Your task to perform on an android device: Go to Google Image 0: 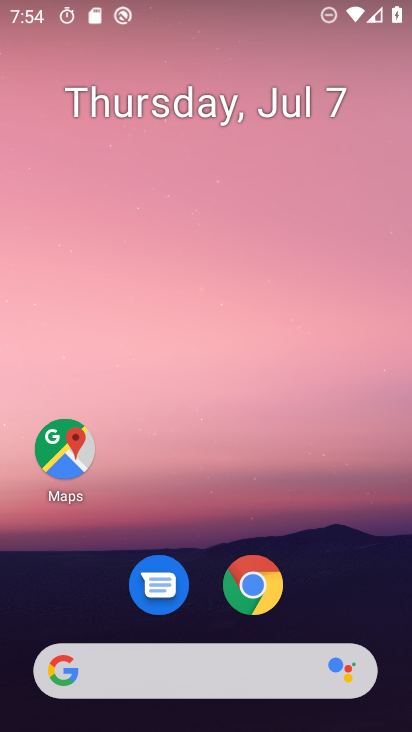
Step 0: drag from (234, 664) to (290, 83)
Your task to perform on an android device: Go to Google Image 1: 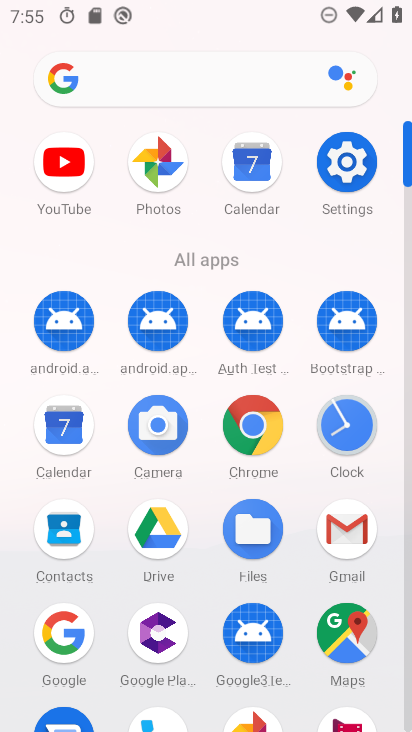
Step 1: click (58, 634)
Your task to perform on an android device: Go to Google Image 2: 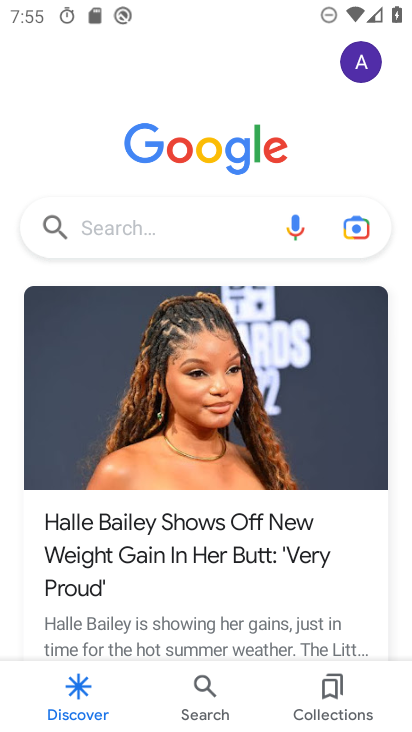
Step 2: task complete